Your task to perform on an android device: turn on notifications settings in the gmail app Image 0: 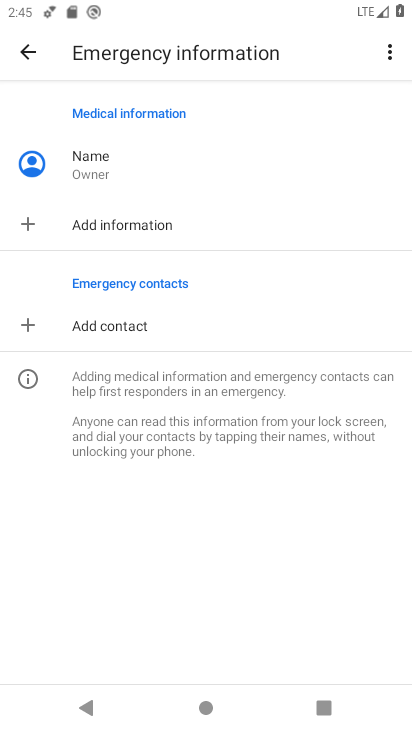
Step 0: press home button
Your task to perform on an android device: turn on notifications settings in the gmail app Image 1: 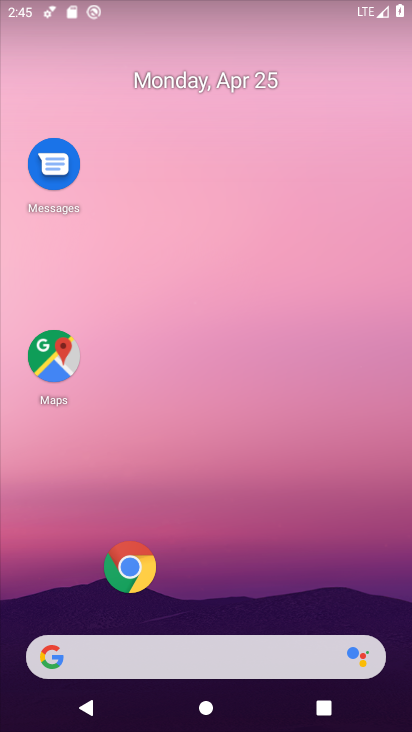
Step 1: drag from (209, 642) to (232, 261)
Your task to perform on an android device: turn on notifications settings in the gmail app Image 2: 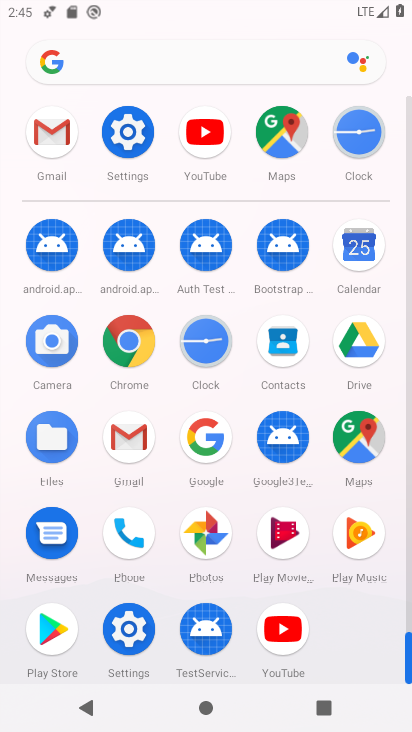
Step 2: click (144, 436)
Your task to perform on an android device: turn on notifications settings in the gmail app Image 3: 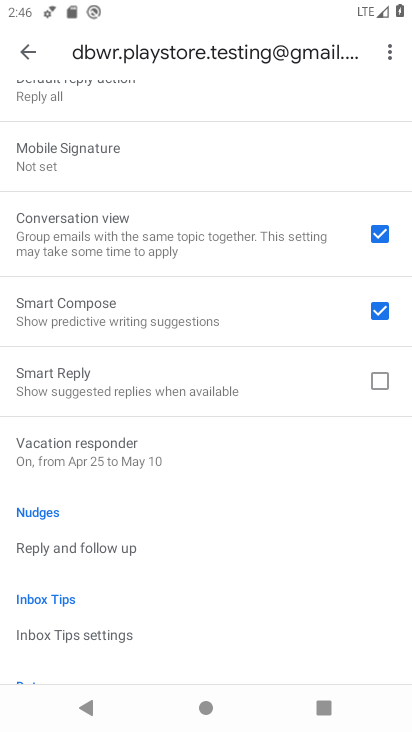
Step 3: click (25, 56)
Your task to perform on an android device: turn on notifications settings in the gmail app Image 4: 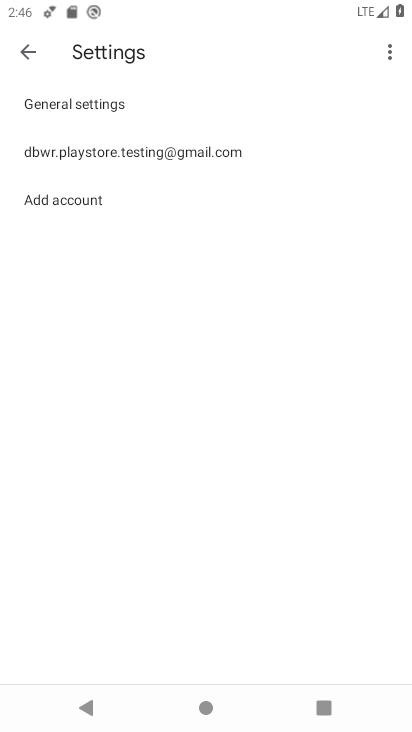
Step 4: click (77, 111)
Your task to perform on an android device: turn on notifications settings in the gmail app Image 5: 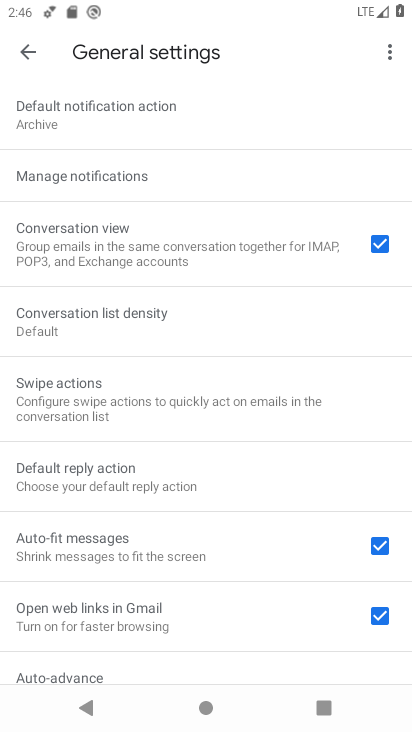
Step 5: click (75, 184)
Your task to perform on an android device: turn on notifications settings in the gmail app Image 6: 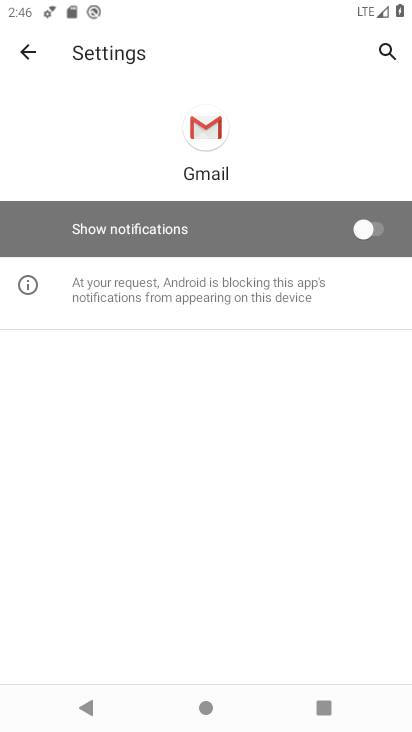
Step 6: click (361, 223)
Your task to perform on an android device: turn on notifications settings in the gmail app Image 7: 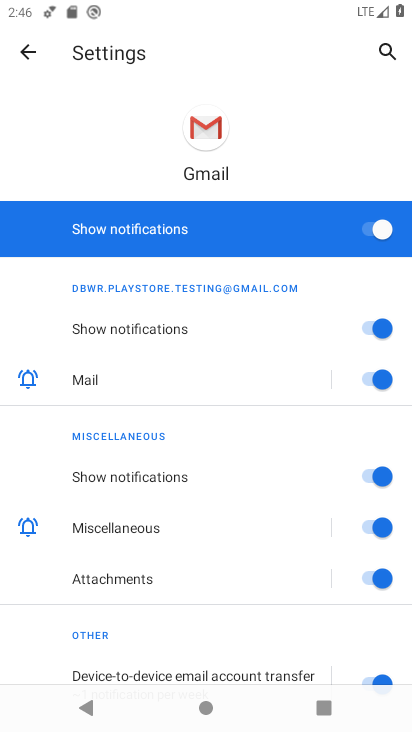
Step 7: task complete